Your task to perform on an android device: Open settings Image 0: 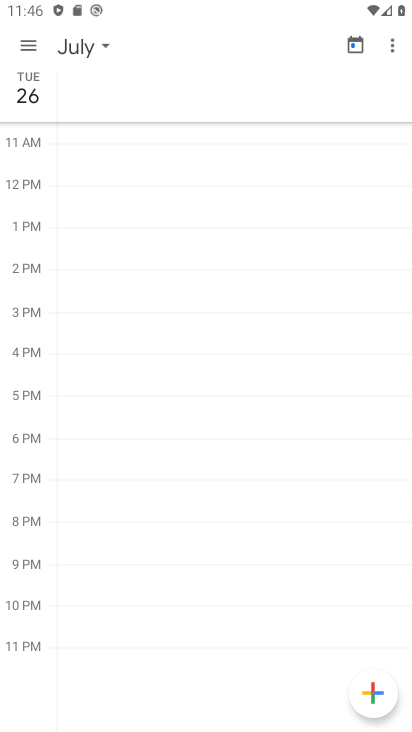
Step 0: press home button
Your task to perform on an android device: Open settings Image 1: 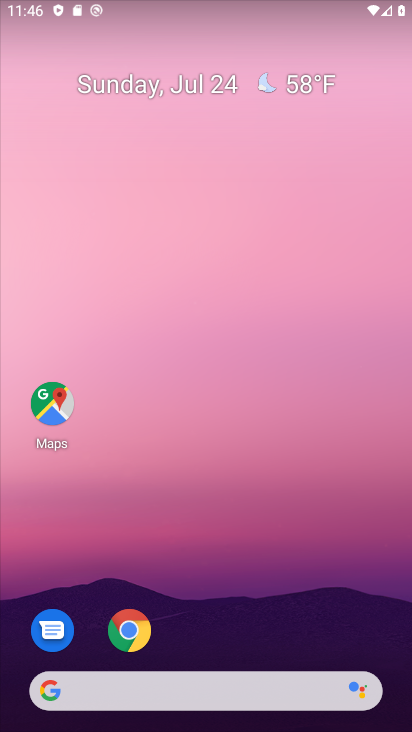
Step 1: drag from (223, 645) to (223, 2)
Your task to perform on an android device: Open settings Image 2: 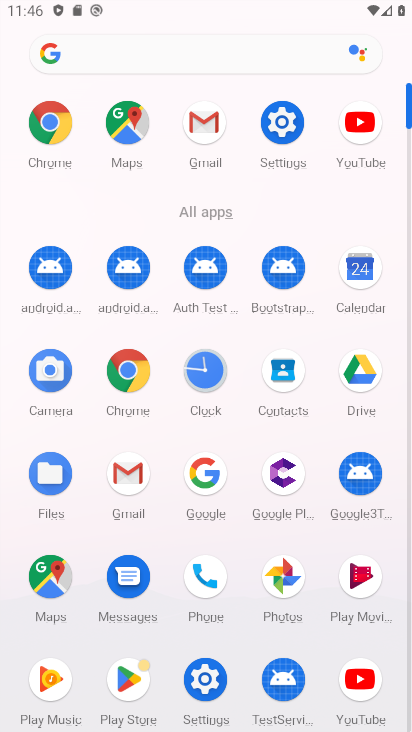
Step 2: click (292, 132)
Your task to perform on an android device: Open settings Image 3: 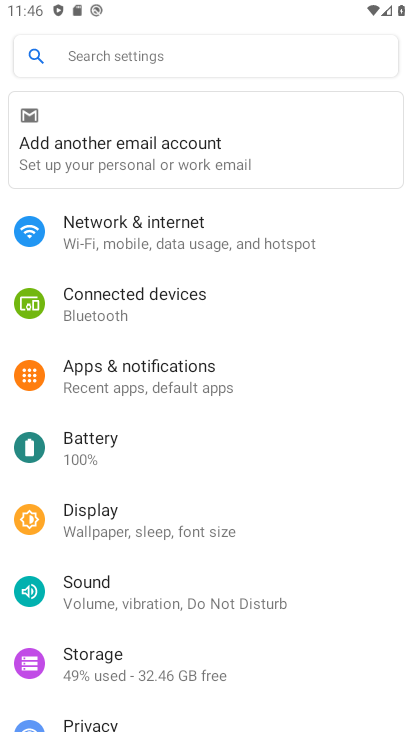
Step 3: task complete